Your task to perform on an android device: refresh tabs in the chrome app Image 0: 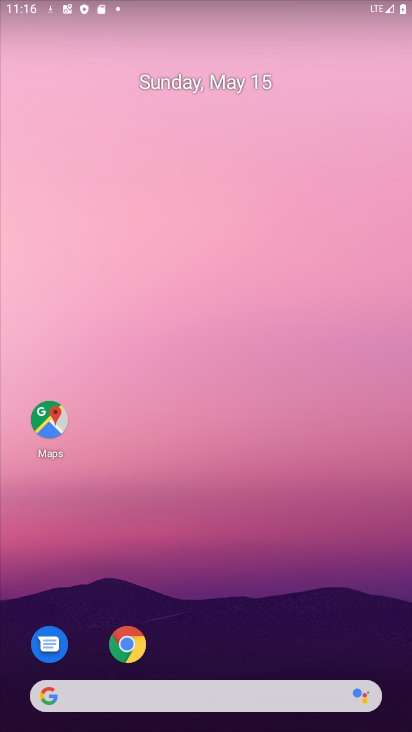
Step 0: drag from (239, 703) to (215, 121)
Your task to perform on an android device: refresh tabs in the chrome app Image 1: 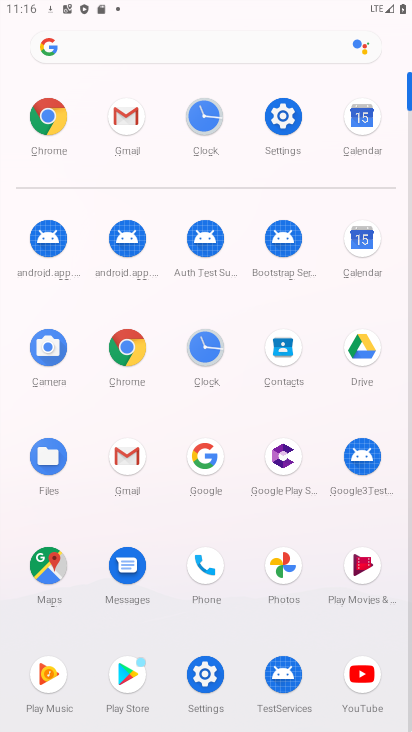
Step 1: click (61, 134)
Your task to perform on an android device: refresh tabs in the chrome app Image 2: 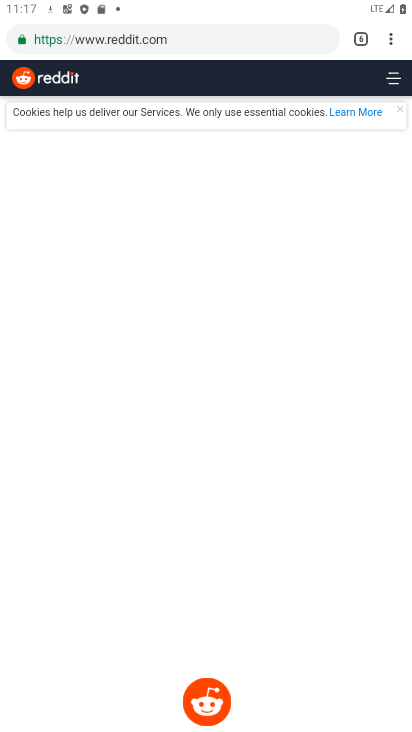
Step 2: click (387, 40)
Your task to perform on an android device: refresh tabs in the chrome app Image 3: 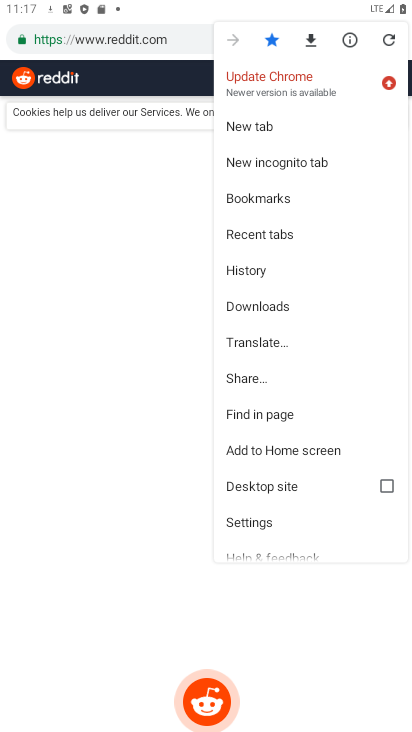
Step 3: click (392, 29)
Your task to perform on an android device: refresh tabs in the chrome app Image 4: 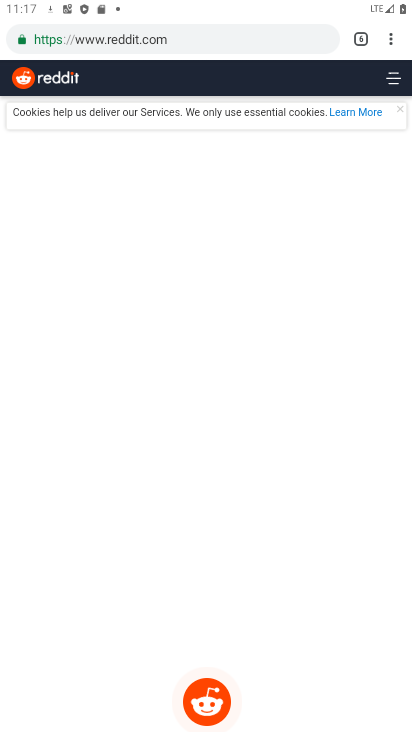
Step 4: task complete